Your task to perform on an android device: turn off translation in the chrome app Image 0: 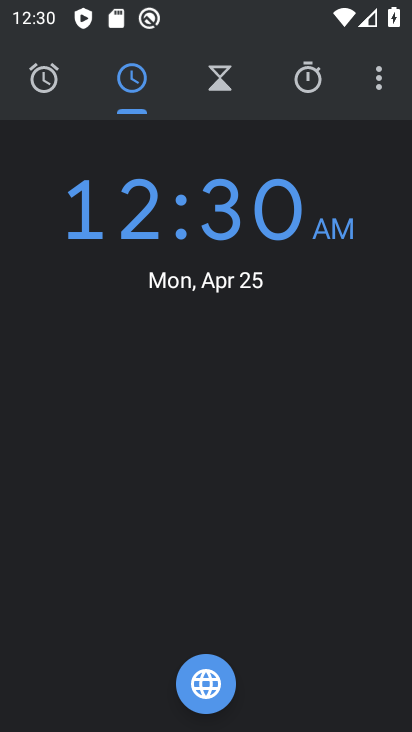
Step 0: click (375, 79)
Your task to perform on an android device: turn off translation in the chrome app Image 1: 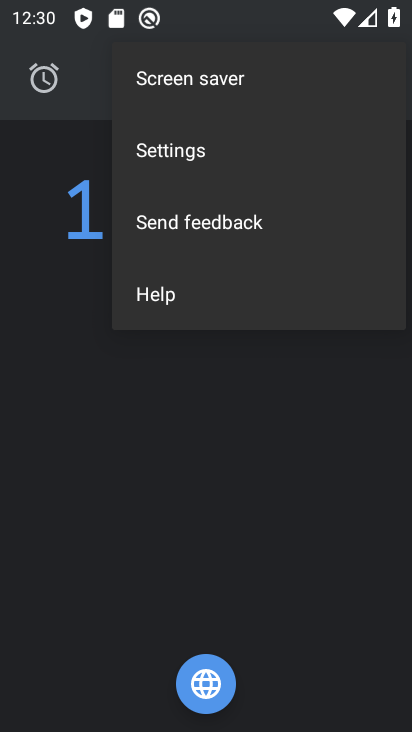
Step 1: click (177, 165)
Your task to perform on an android device: turn off translation in the chrome app Image 2: 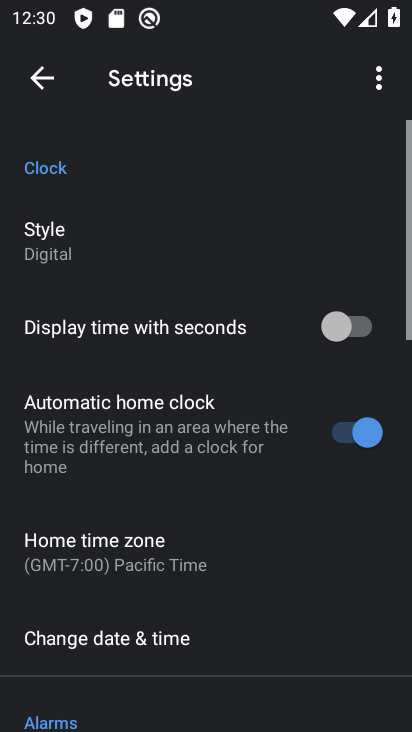
Step 2: drag from (213, 636) to (270, 55)
Your task to perform on an android device: turn off translation in the chrome app Image 3: 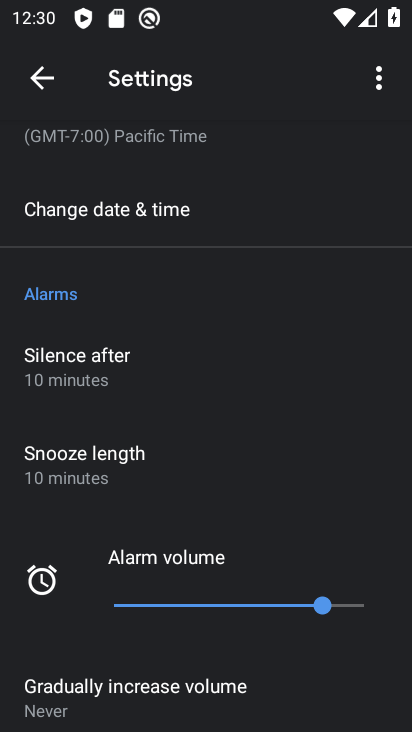
Step 3: press back button
Your task to perform on an android device: turn off translation in the chrome app Image 4: 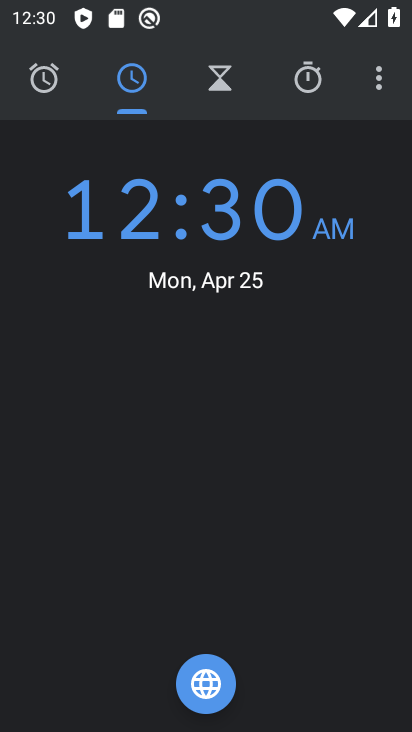
Step 4: press back button
Your task to perform on an android device: turn off translation in the chrome app Image 5: 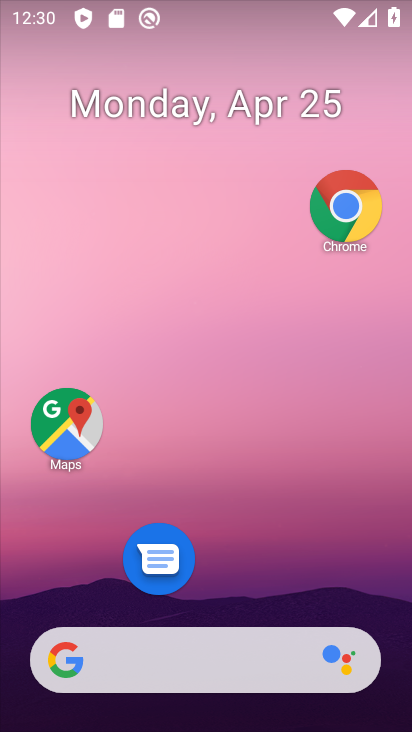
Step 5: click (344, 208)
Your task to perform on an android device: turn off translation in the chrome app Image 6: 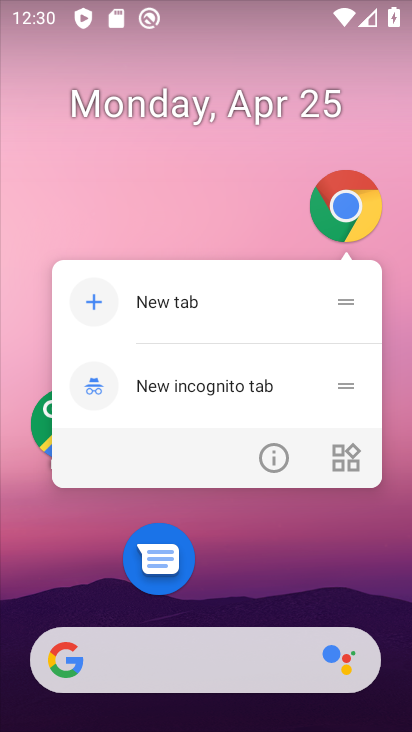
Step 6: click (337, 205)
Your task to perform on an android device: turn off translation in the chrome app Image 7: 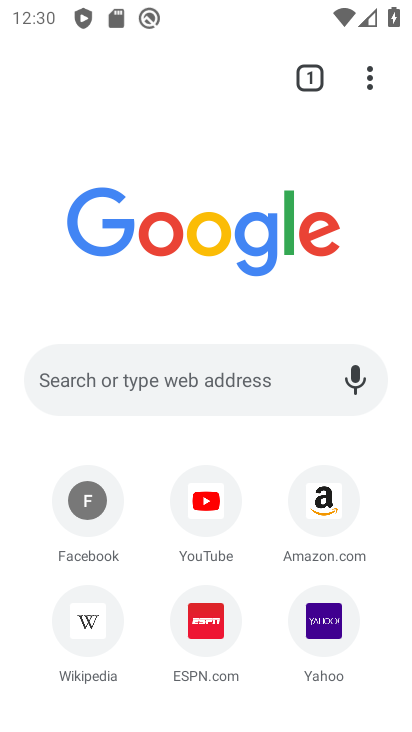
Step 7: click (372, 78)
Your task to perform on an android device: turn off translation in the chrome app Image 8: 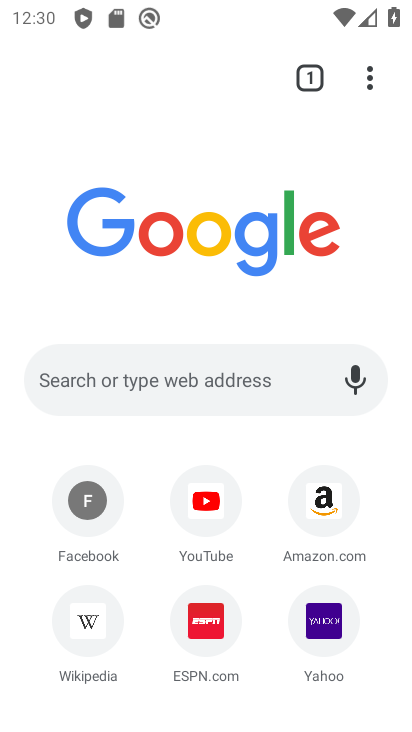
Step 8: drag from (362, 74) to (104, 637)
Your task to perform on an android device: turn off translation in the chrome app Image 9: 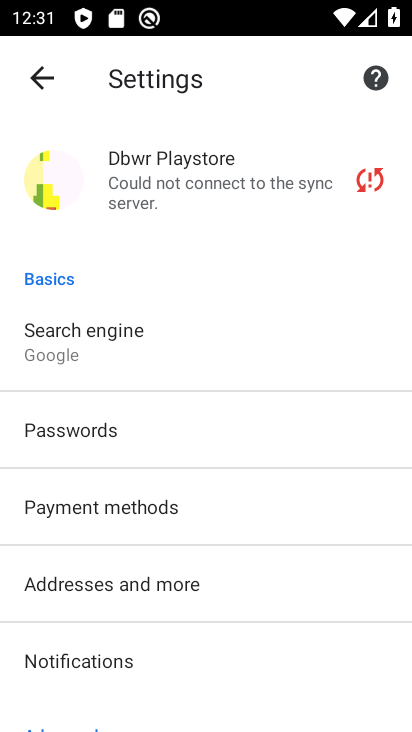
Step 9: drag from (212, 663) to (260, 169)
Your task to perform on an android device: turn off translation in the chrome app Image 10: 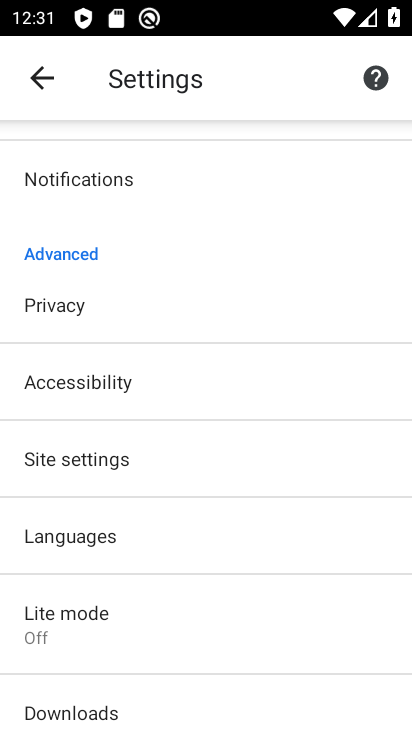
Step 10: click (102, 537)
Your task to perform on an android device: turn off translation in the chrome app Image 11: 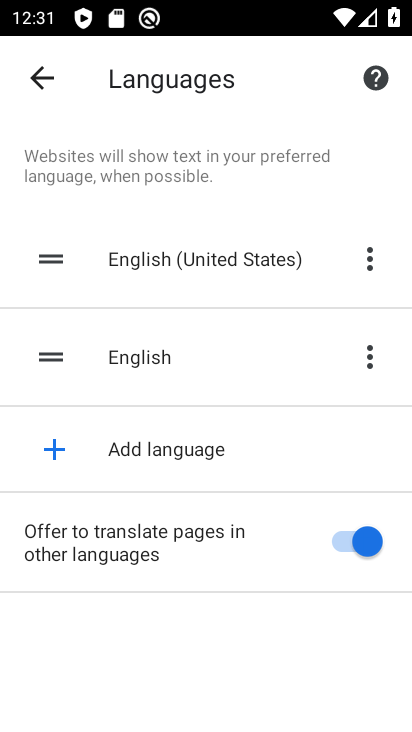
Step 11: click (359, 546)
Your task to perform on an android device: turn off translation in the chrome app Image 12: 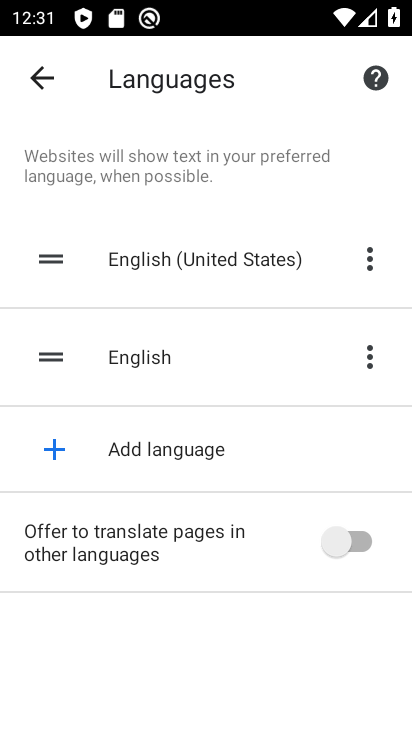
Step 12: task complete